Your task to perform on an android device: Add macbook pro 15 inch to the cart on bestbuy.com, then select checkout. Image 0: 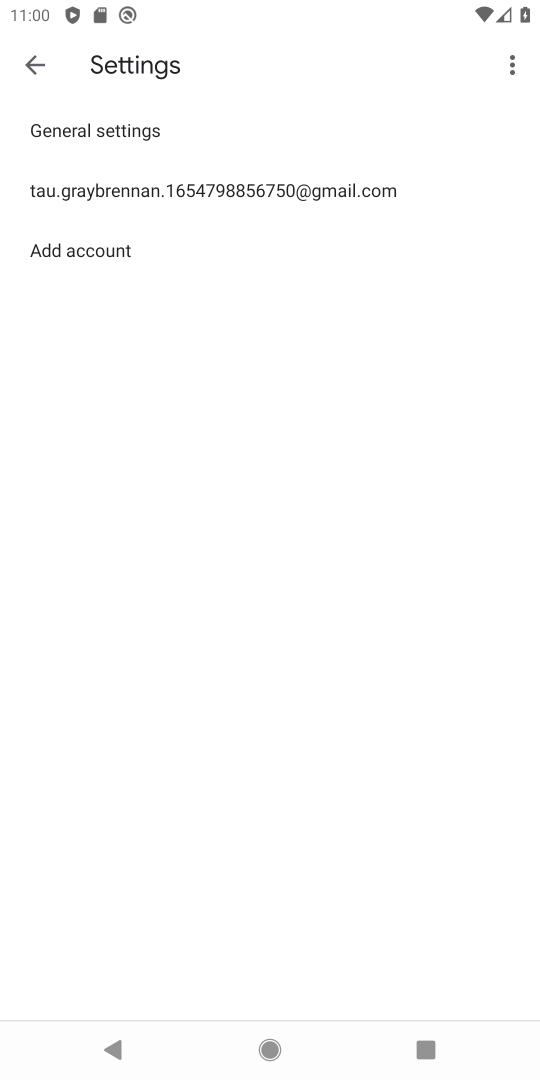
Step 0: press home button
Your task to perform on an android device: Add macbook pro 15 inch to the cart on bestbuy.com, then select checkout. Image 1: 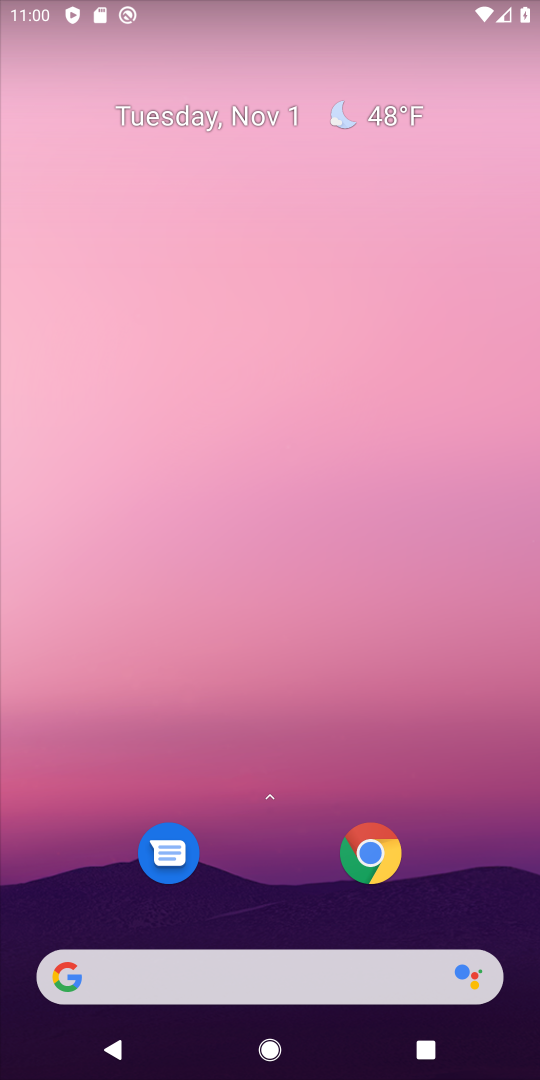
Step 1: drag from (251, 805) to (334, 60)
Your task to perform on an android device: Add macbook pro 15 inch to the cart on bestbuy.com, then select checkout. Image 2: 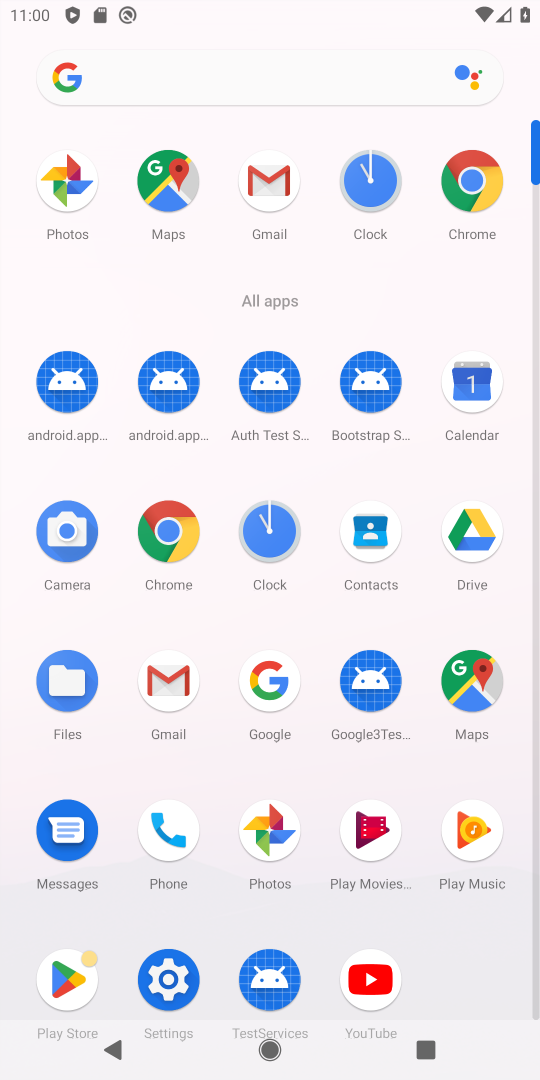
Step 2: click (175, 522)
Your task to perform on an android device: Add macbook pro 15 inch to the cart on bestbuy.com, then select checkout. Image 3: 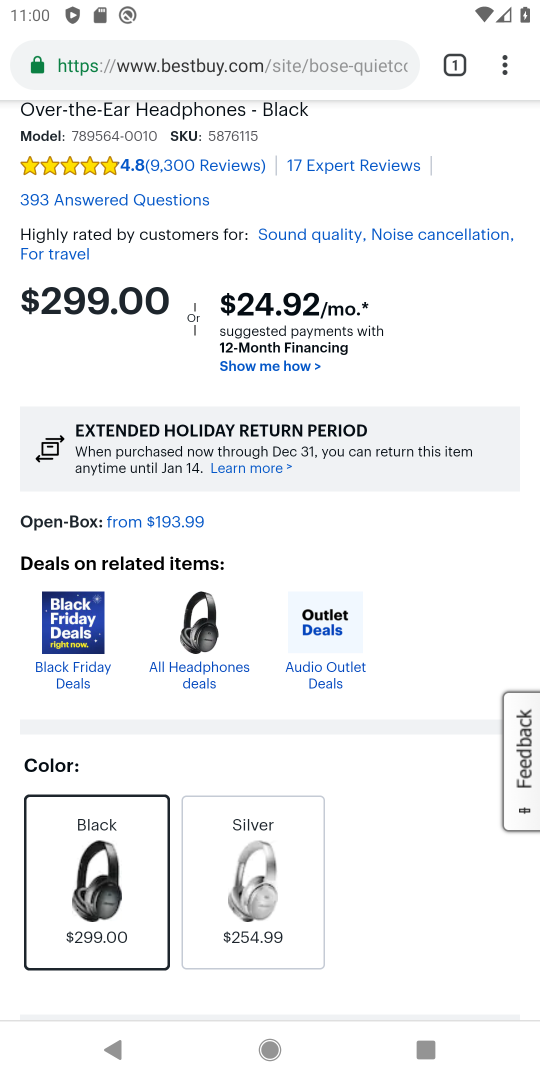
Step 3: click (288, 67)
Your task to perform on an android device: Add macbook pro 15 inch to the cart on bestbuy.com, then select checkout. Image 4: 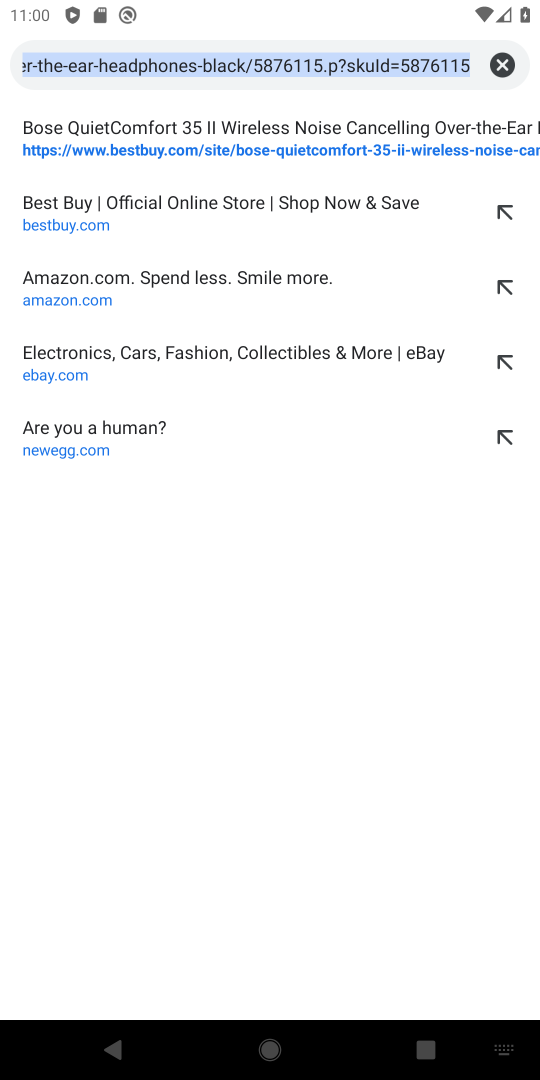
Step 4: click (500, 65)
Your task to perform on an android device: Add macbook pro 15 inch to the cart on bestbuy.com, then select checkout. Image 5: 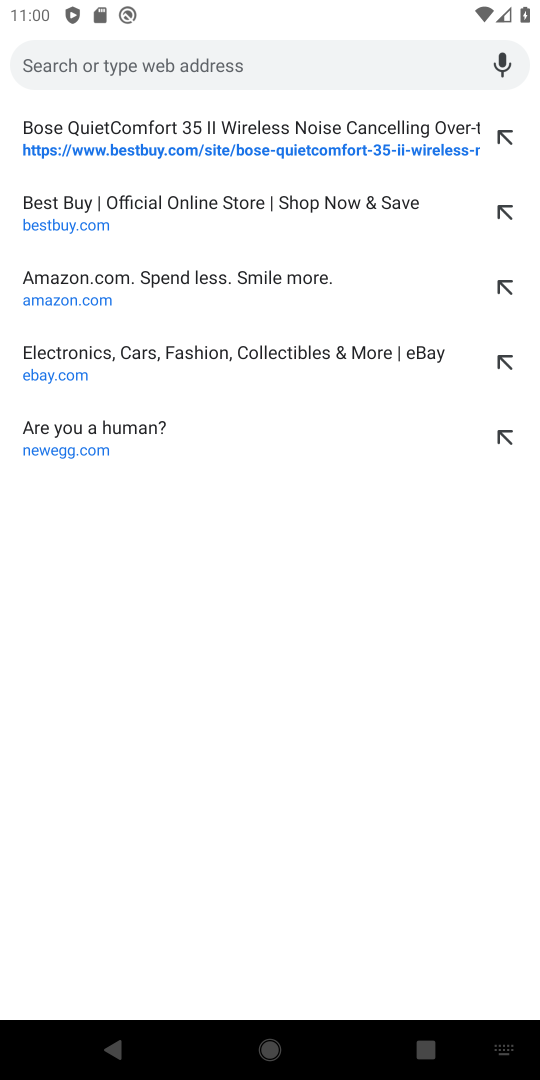
Step 5: type " bestbuy.com"
Your task to perform on an android device: Add macbook pro 15 inch to the cart on bestbuy.com, then select checkout. Image 6: 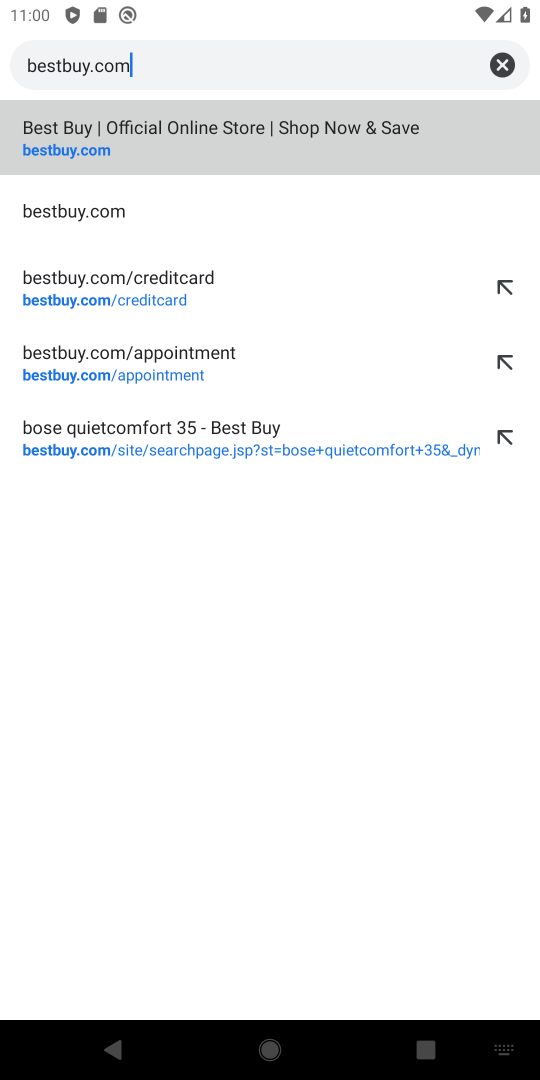
Step 6: type ""
Your task to perform on an android device: Add macbook pro 15 inch to the cart on bestbuy.com, then select checkout. Image 7: 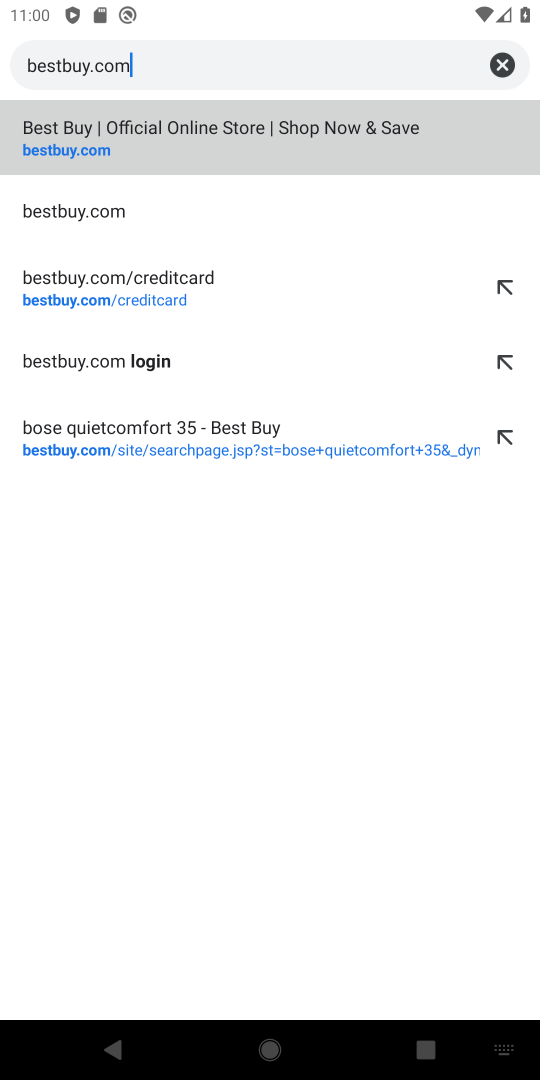
Step 7: click (59, 149)
Your task to perform on an android device: Add macbook pro 15 inch to the cart on bestbuy.com, then select checkout. Image 8: 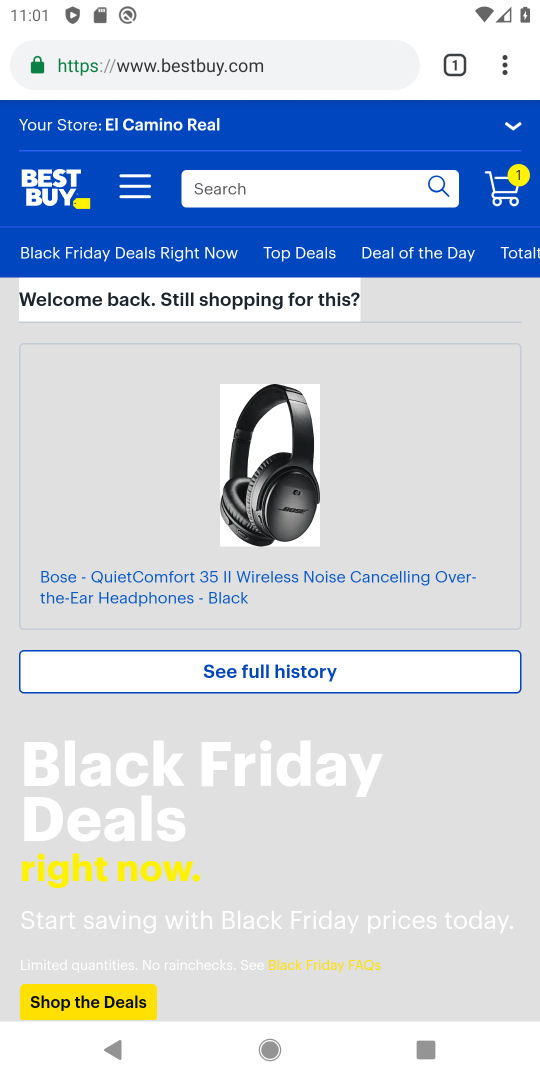
Step 8: click (230, 188)
Your task to perform on an android device: Add macbook pro 15 inch to the cart on bestbuy.com, then select checkout. Image 9: 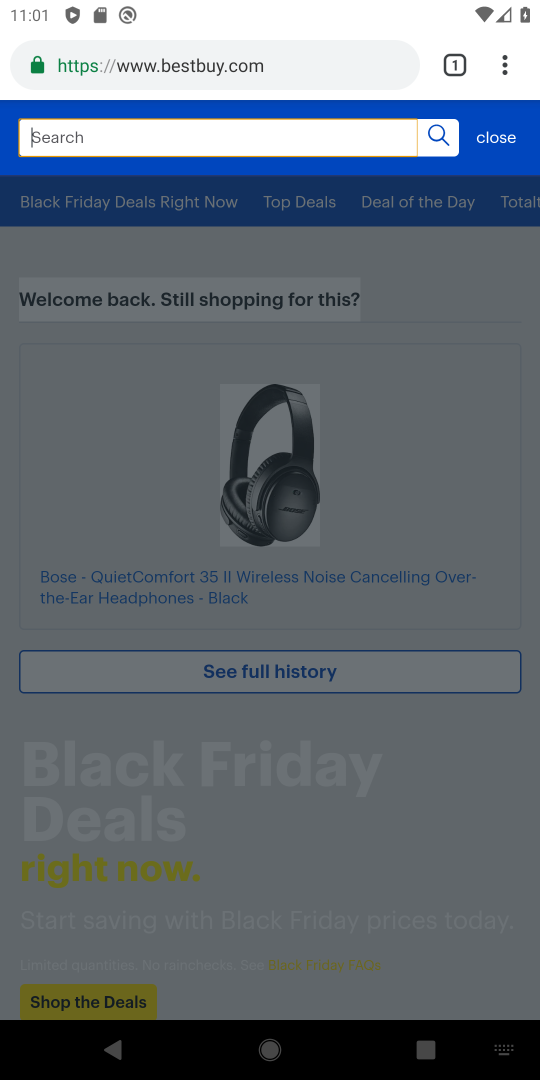
Step 9: type " macbook pro 15 inch"
Your task to perform on an android device: Add macbook pro 15 inch to the cart on bestbuy.com, then select checkout. Image 10: 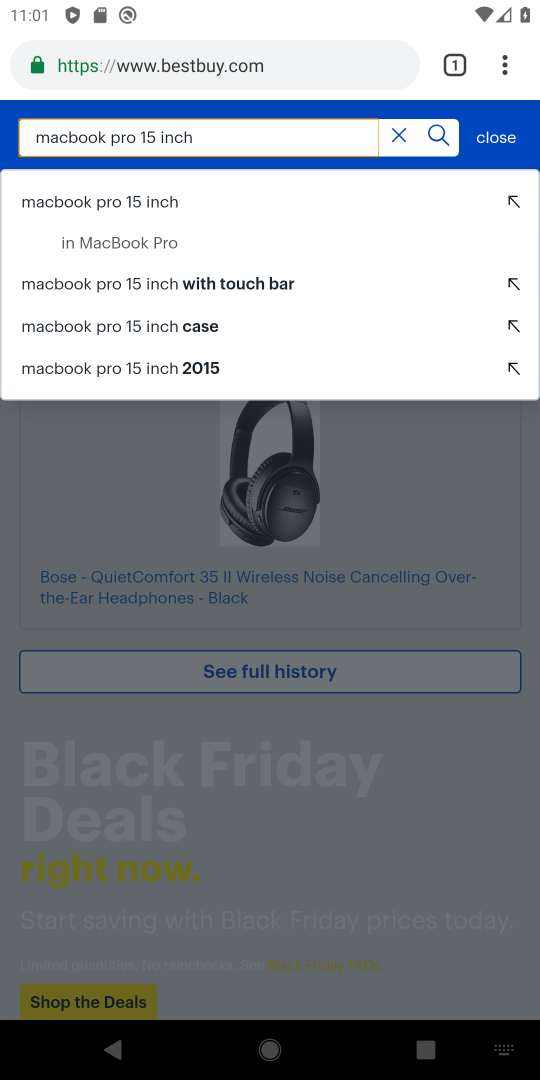
Step 10: click (439, 138)
Your task to perform on an android device: Add macbook pro 15 inch to the cart on bestbuy.com, then select checkout. Image 11: 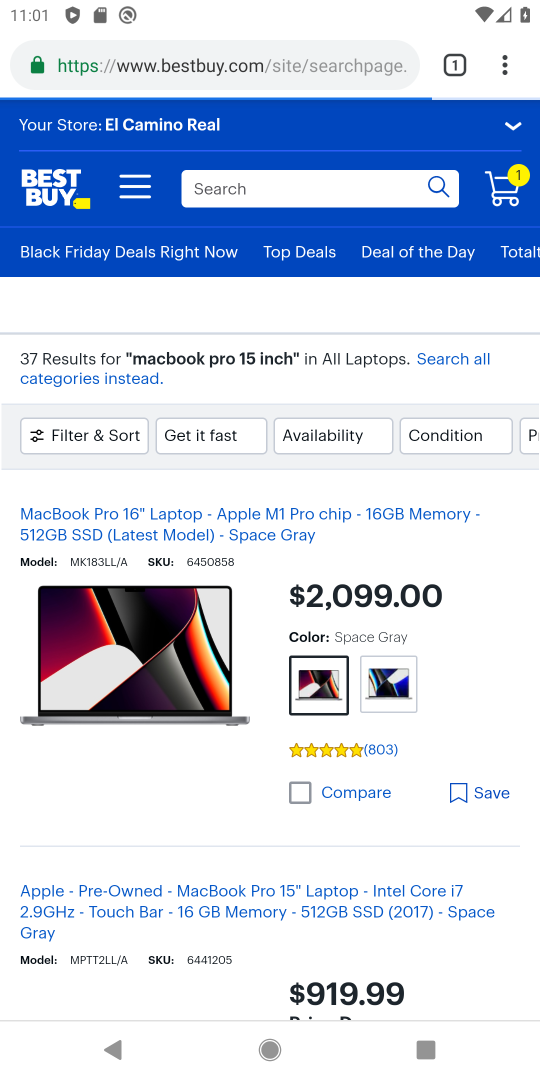
Step 11: click (115, 654)
Your task to perform on an android device: Add macbook pro 15 inch to the cart on bestbuy.com, then select checkout. Image 12: 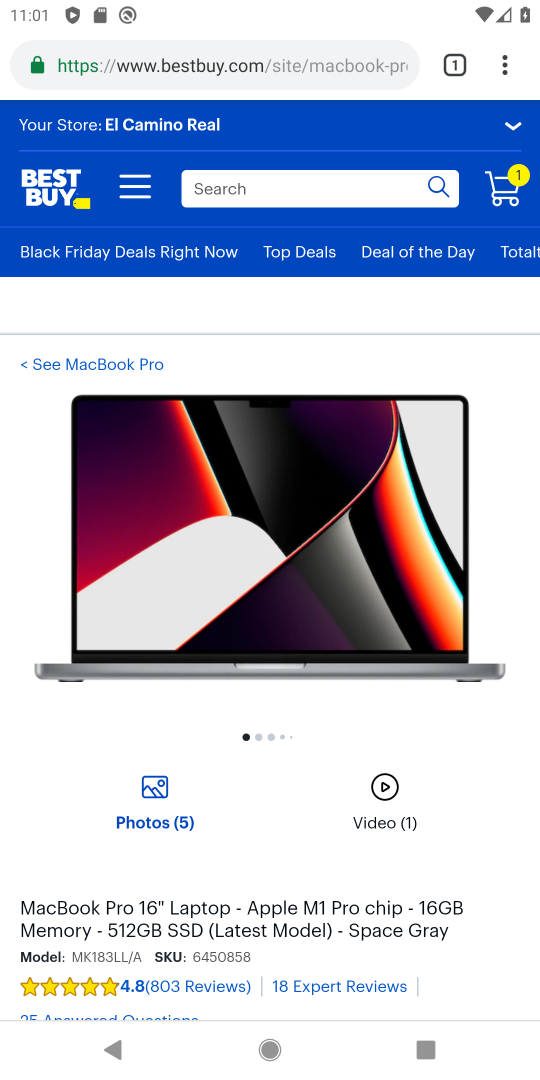
Step 12: drag from (292, 809) to (381, 300)
Your task to perform on an android device: Add macbook pro 15 inch to the cart on bestbuy.com, then select checkout. Image 13: 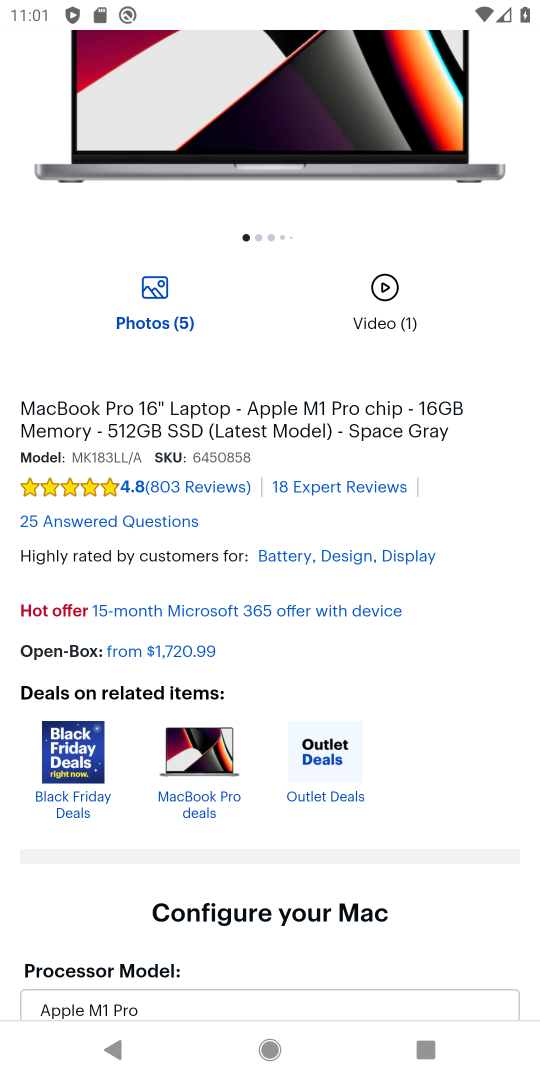
Step 13: drag from (351, 745) to (356, 251)
Your task to perform on an android device: Add macbook pro 15 inch to the cart on bestbuy.com, then select checkout. Image 14: 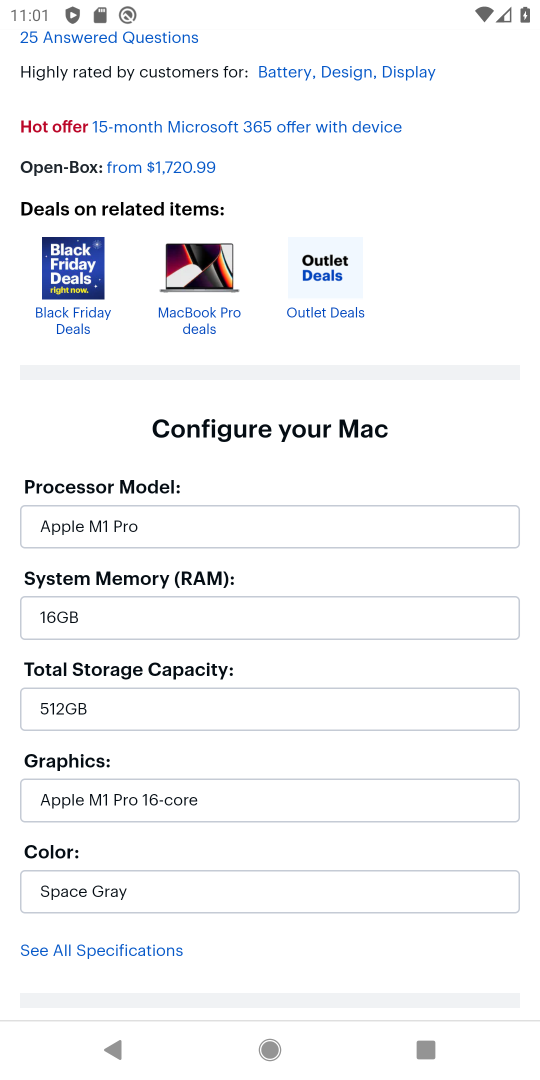
Step 14: drag from (333, 792) to (300, 289)
Your task to perform on an android device: Add macbook pro 15 inch to the cart on bestbuy.com, then select checkout. Image 15: 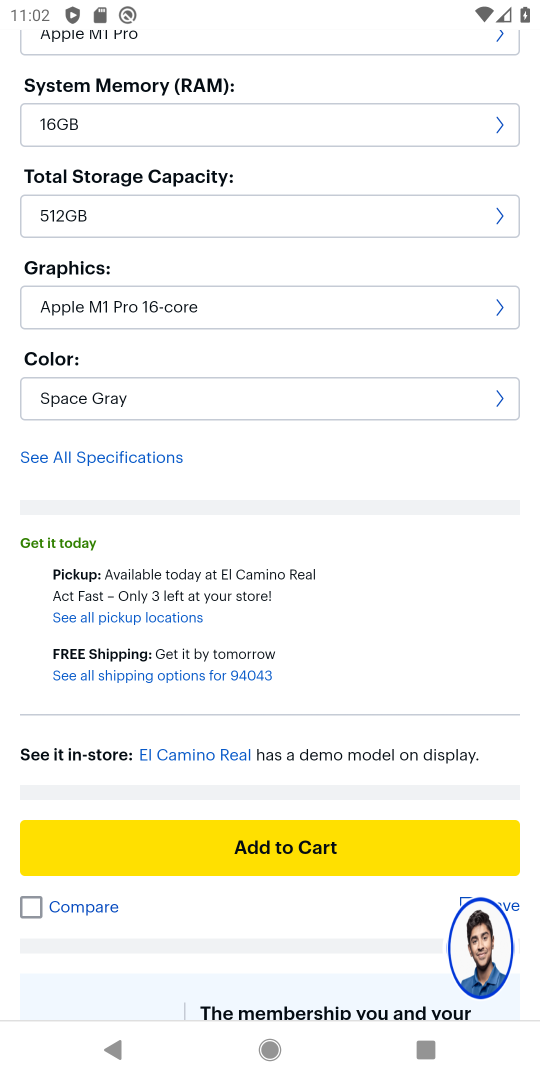
Step 15: click (259, 770)
Your task to perform on an android device: Add macbook pro 15 inch to the cart on bestbuy.com, then select checkout. Image 16: 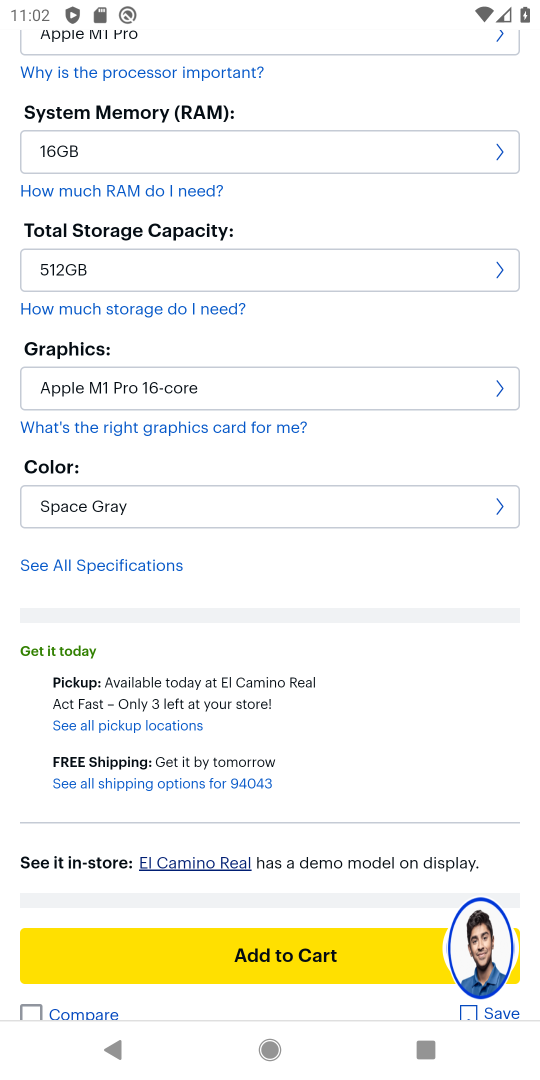
Step 16: click (272, 858)
Your task to perform on an android device: Add macbook pro 15 inch to the cart on bestbuy.com, then select checkout. Image 17: 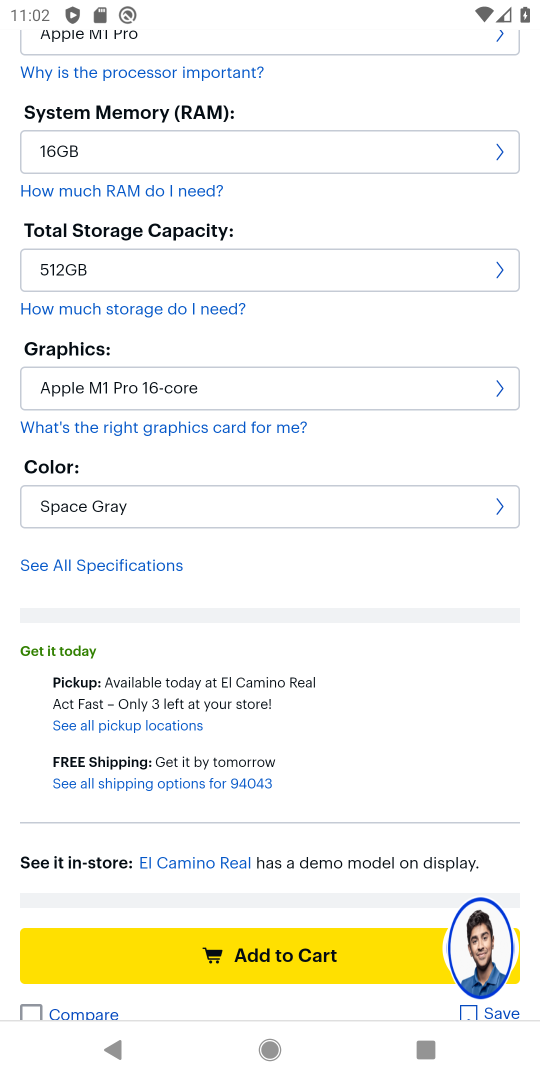
Step 17: click (246, 951)
Your task to perform on an android device: Add macbook pro 15 inch to the cart on bestbuy.com, then select checkout. Image 18: 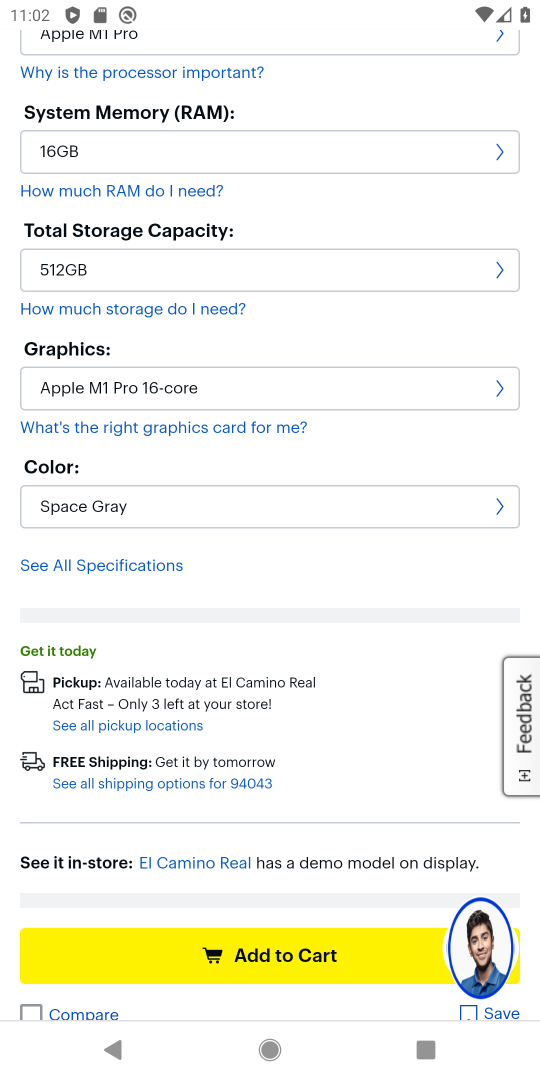
Step 18: task complete